Your task to perform on an android device: choose inbox layout in the gmail app Image 0: 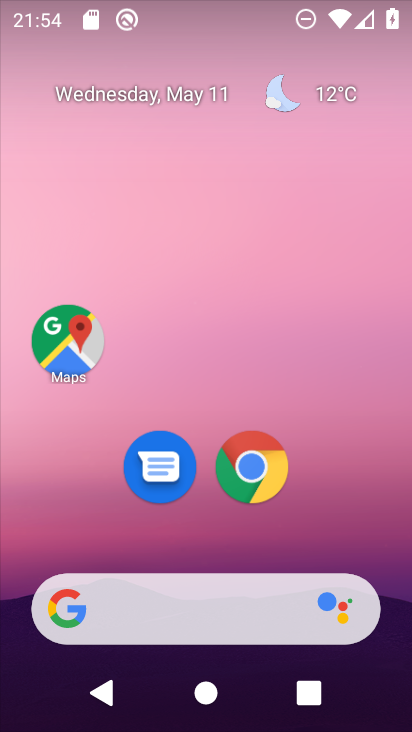
Step 0: drag from (219, 543) to (225, 95)
Your task to perform on an android device: choose inbox layout in the gmail app Image 1: 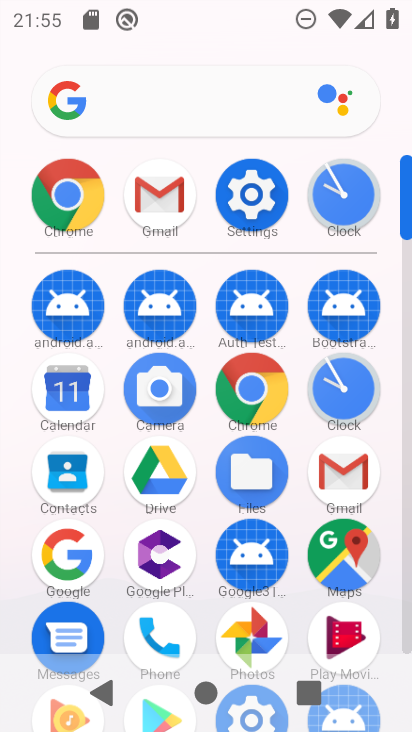
Step 1: click (335, 467)
Your task to perform on an android device: choose inbox layout in the gmail app Image 2: 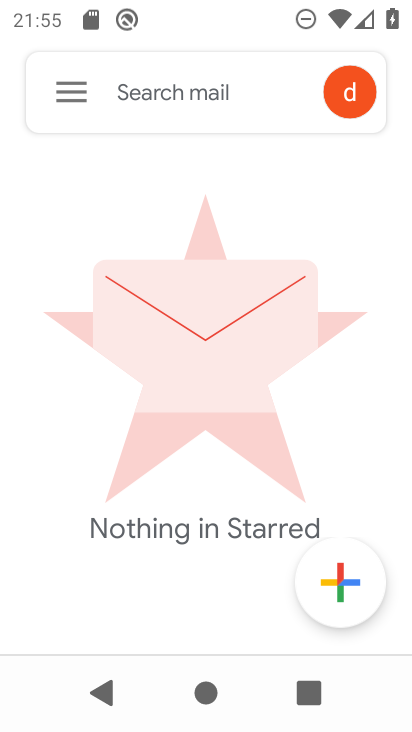
Step 2: click (68, 88)
Your task to perform on an android device: choose inbox layout in the gmail app Image 3: 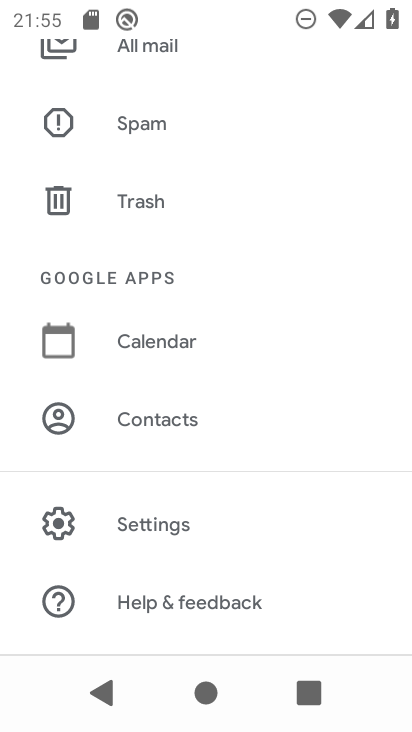
Step 3: click (159, 541)
Your task to perform on an android device: choose inbox layout in the gmail app Image 4: 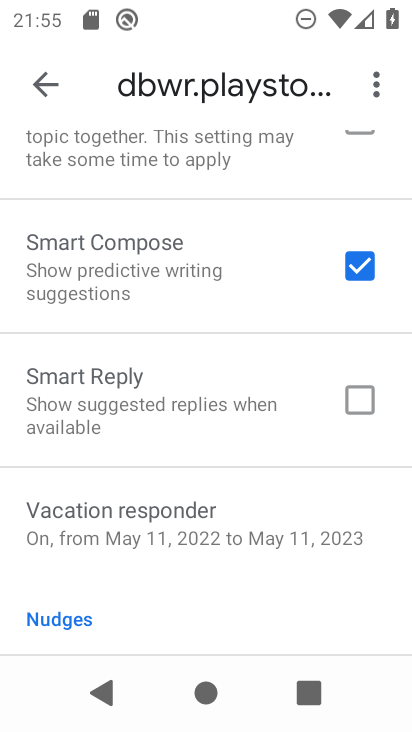
Step 4: drag from (123, 160) to (141, 705)
Your task to perform on an android device: choose inbox layout in the gmail app Image 5: 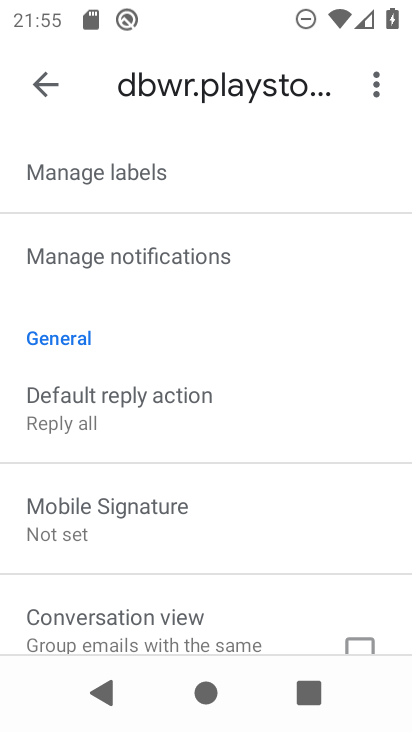
Step 5: drag from (147, 223) to (137, 730)
Your task to perform on an android device: choose inbox layout in the gmail app Image 6: 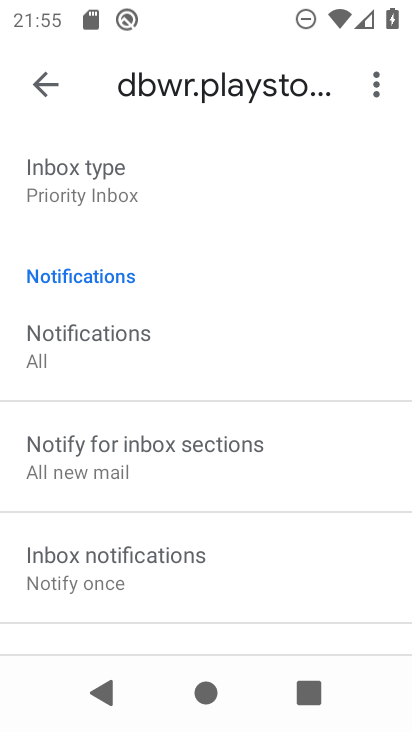
Step 6: click (129, 190)
Your task to perform on an android device: choose inbox layout in the gmail app Image 7: 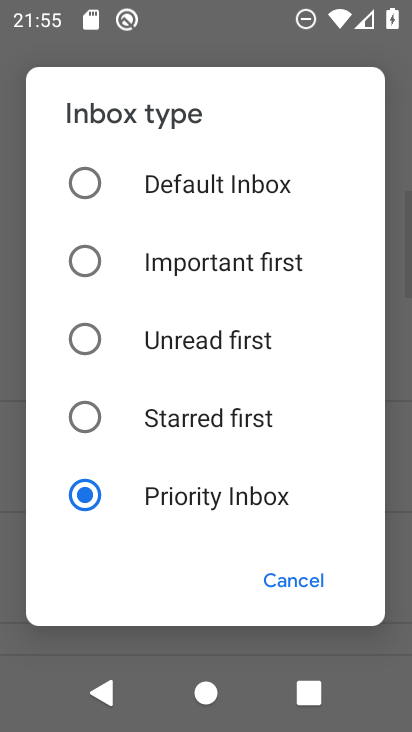
Step 7: click (84, 182)
Your task to perform on an android device: choose inbox layout in the gmail app Image 8: 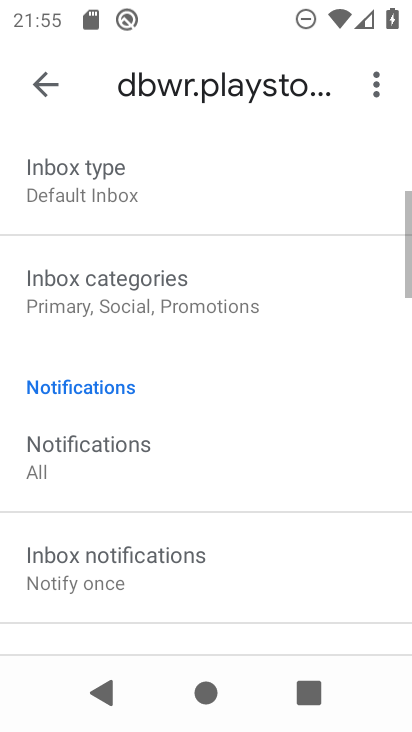
Step 8: task complete